Your task to perform on an android device: add a contact in the contacts app Image 0: 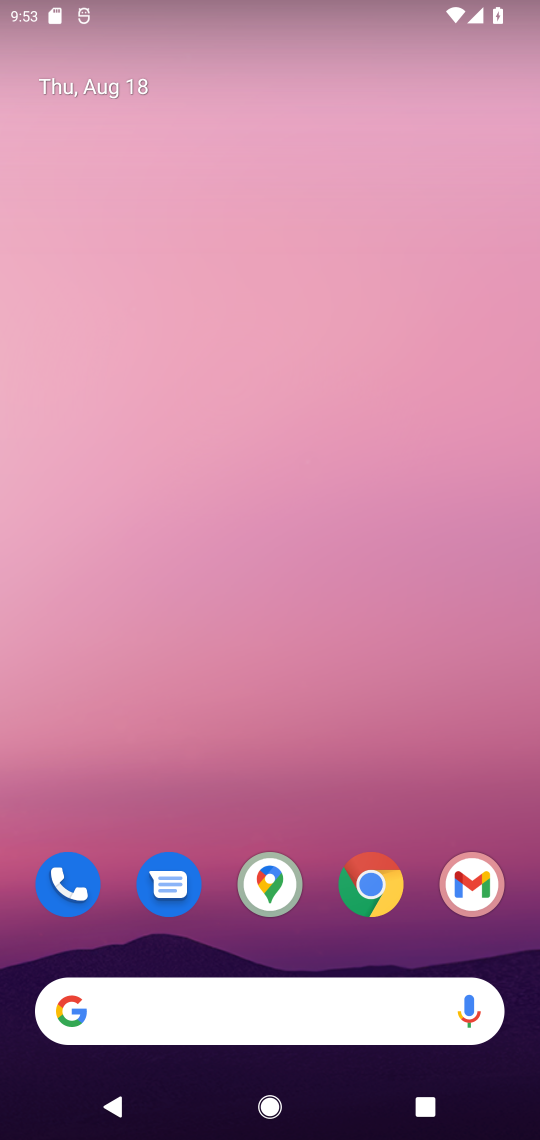
Step 0: click (57, 882)
Your task to perform on an android device: add a contact in the contacts app Image 1: 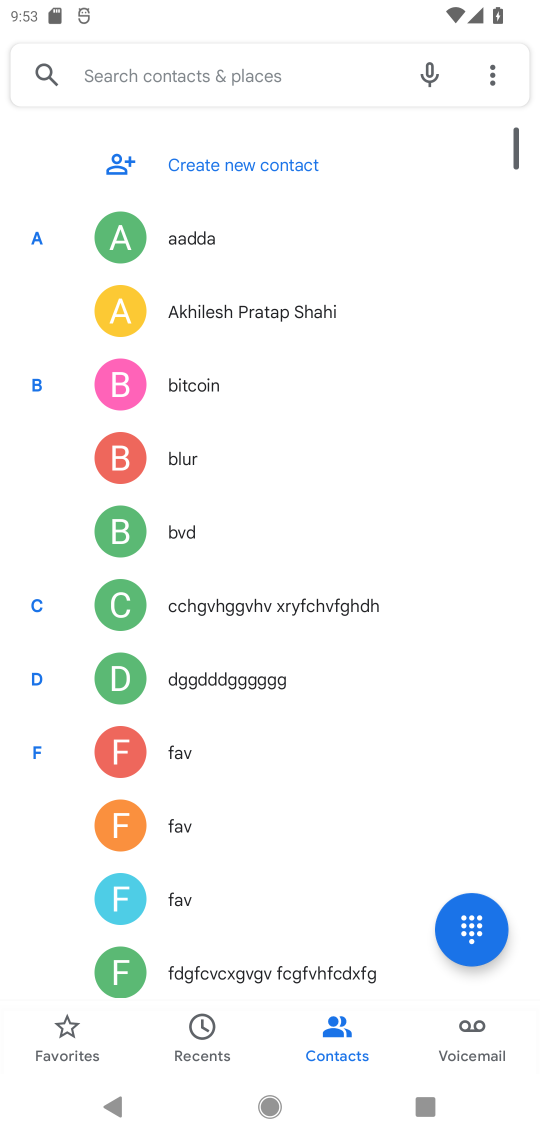
Step 1: click (294, 177)
Your task to perform on an android device: add a contact in the contacts app Image 2: 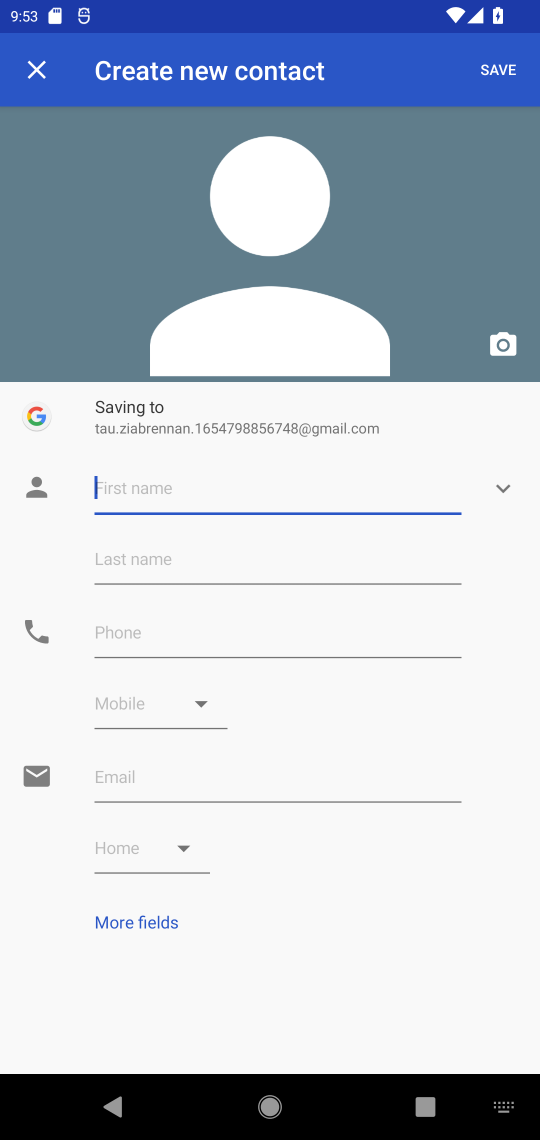
Step 2: click (239, 486)
Your task to perform on an android device: add a contact in the contacts app Image 3: 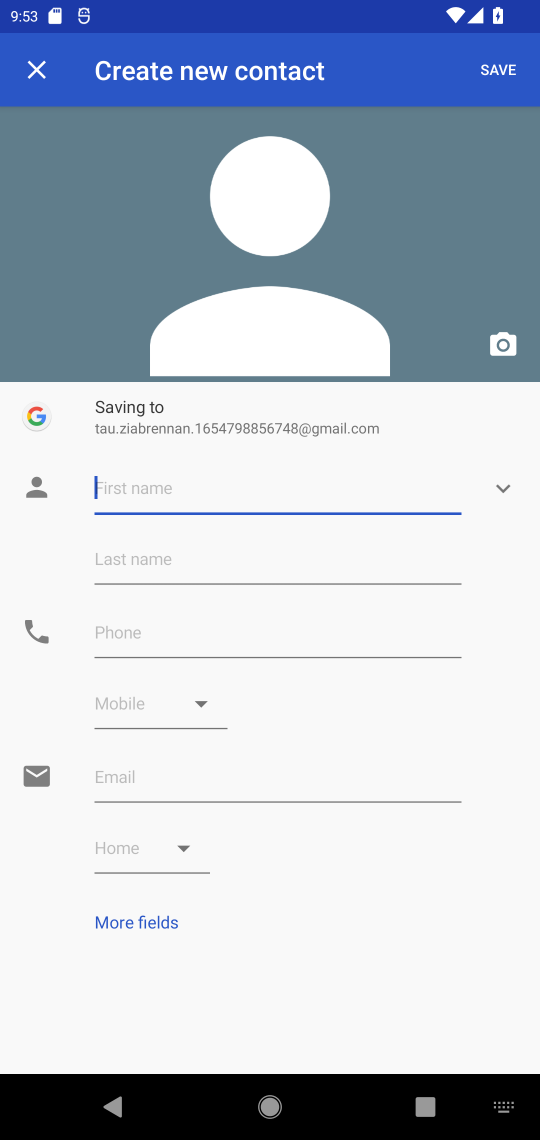
Step 3: type "poivr"
Your task to perform on an android device: add a contact in the contacts app Image 4: 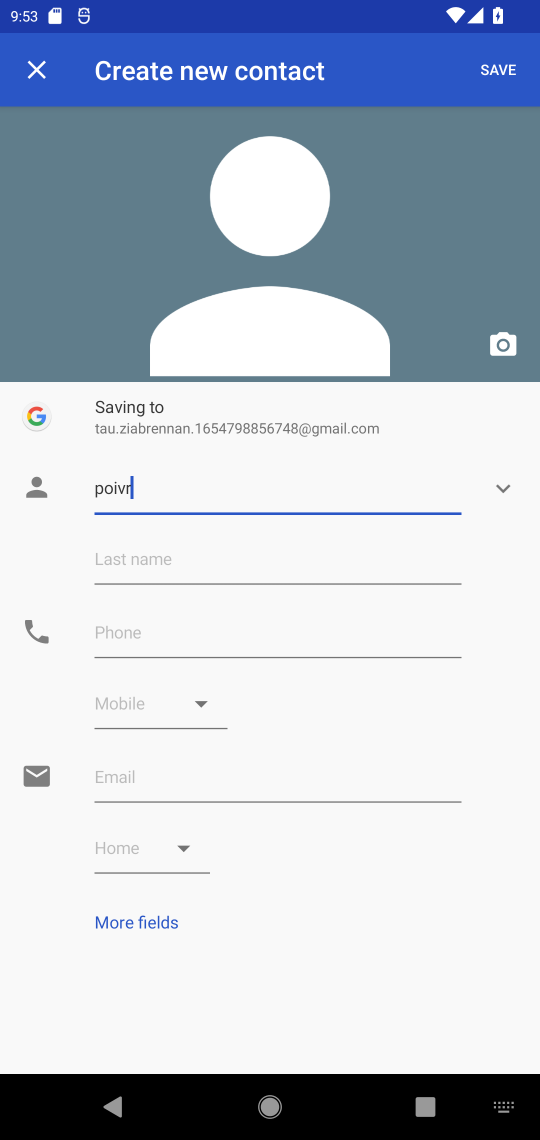
Step 4: click (319, 639)
Your task to perform on an android device: add a contact in the contacts app Image 5: 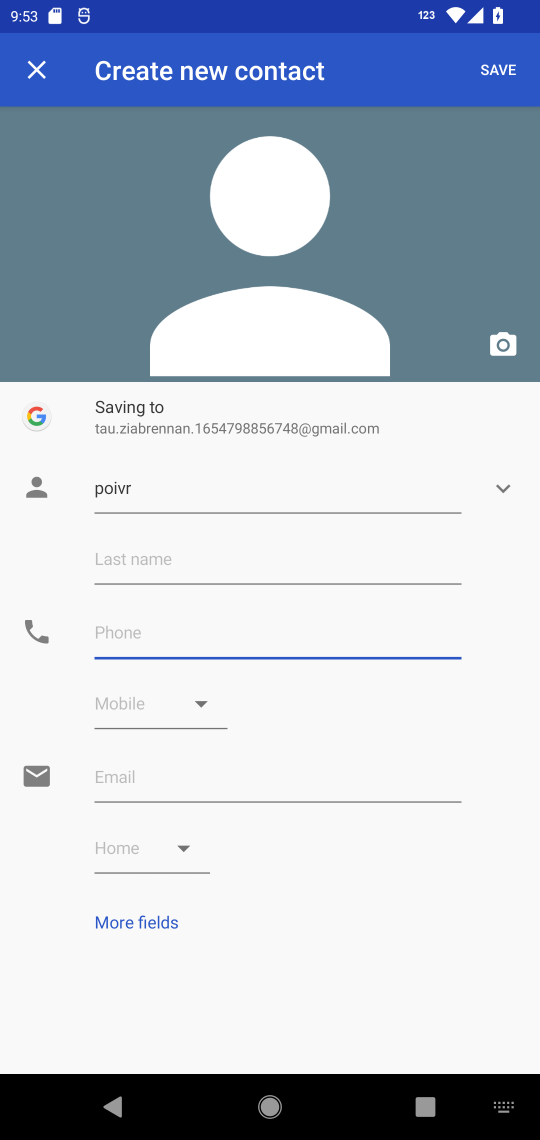
Step 5: type "765456788"
Your task to perform on an android device: add a contact in the contacts app Image 6: 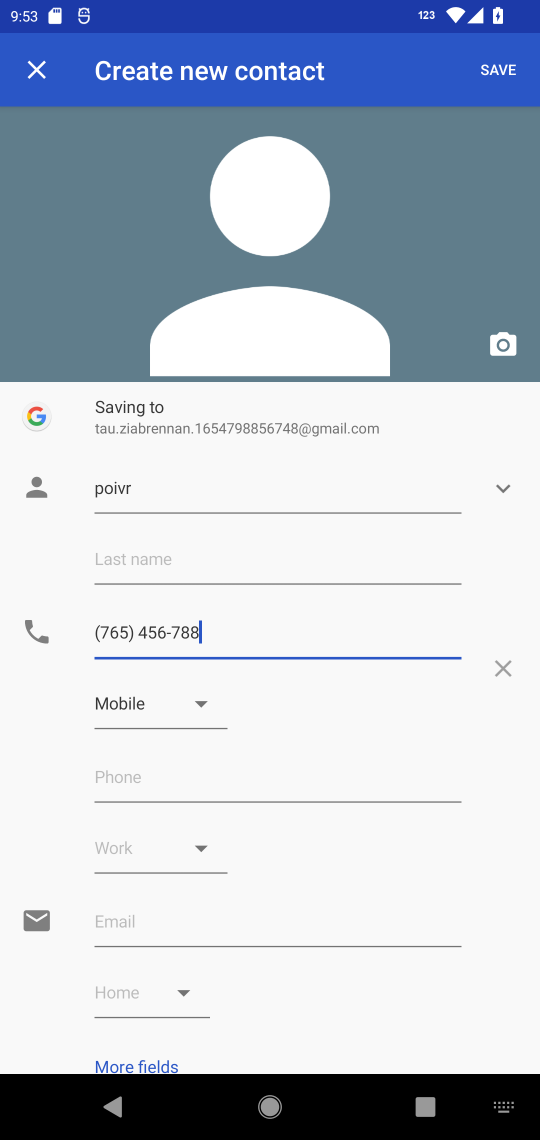
Step 6: click (515, 69)
Your task to perform on an android device: add a contact in the contacts app Image 7: 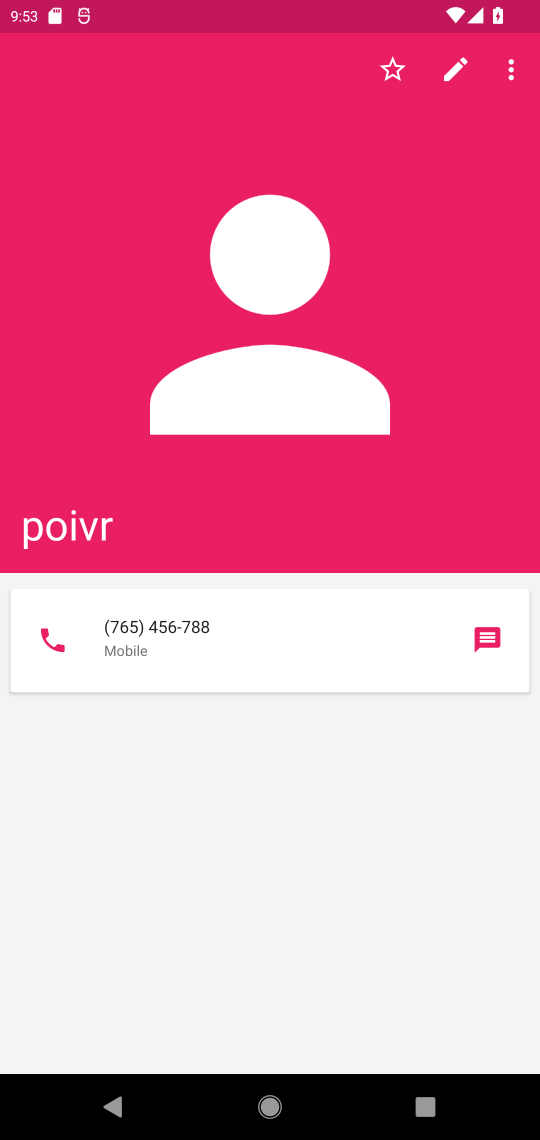
Step 7: task complete